Your task to perform on an android device: turn smart compose on in the gmail app Image 0: 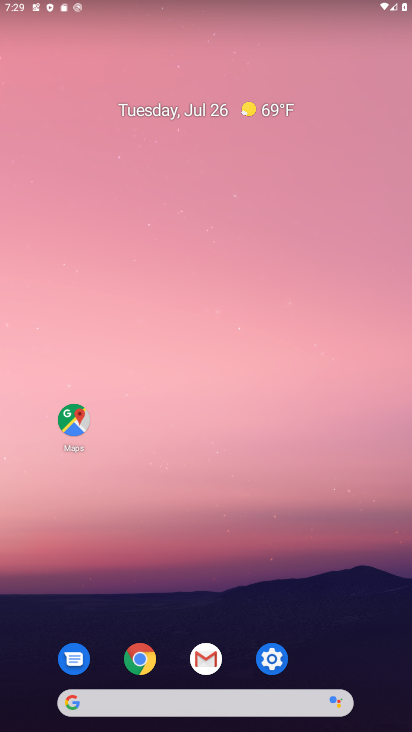
Step 0: click (194, 650)
Your task to perform on an android device: turn smart compose on in the gmail app Image 1: 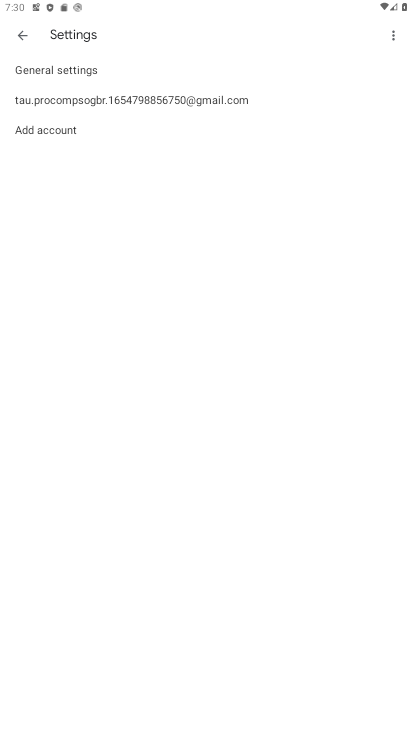
Step 1: click (106, 108)
Your task to perform on an android device: turn smart compose on in the gmail app Image 2: 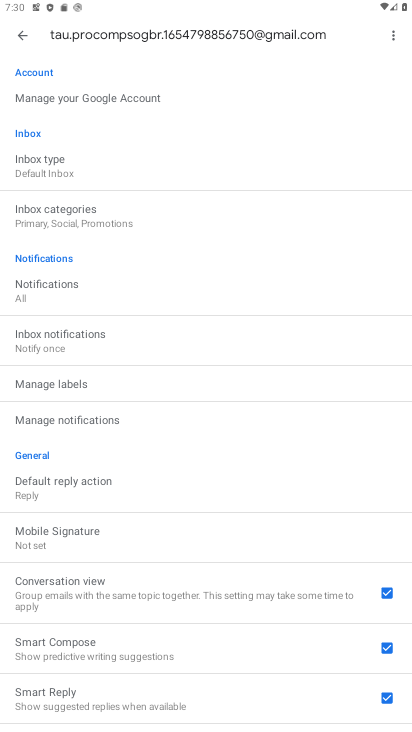
Step 2: click (191, 688)
Your task to perform on an android device: turn smart compose on in the gmail app Image 3: 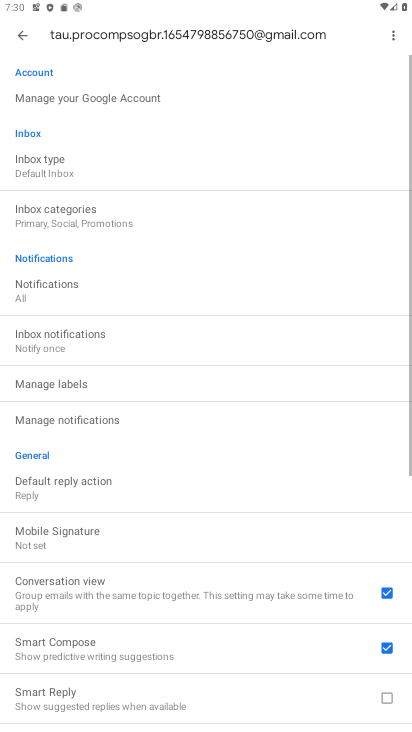
Step 3: click (195, 691)
Your task to perform on an android device: turn smart compose on in the gmail app Image 4: 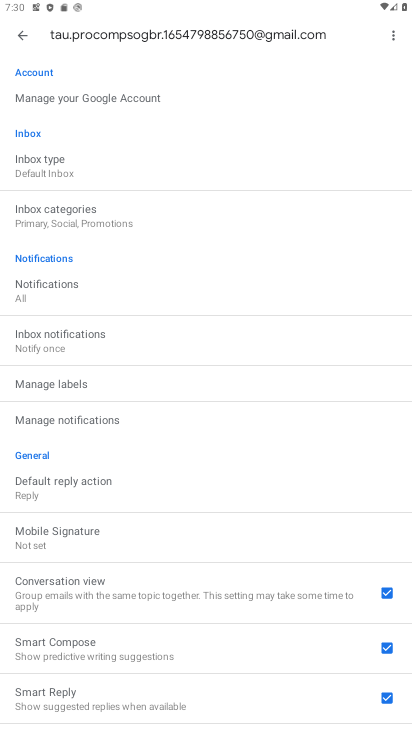
Step 4: task complete